Your task to perform on an android device: turn off javascript in the chrome app Image 0: 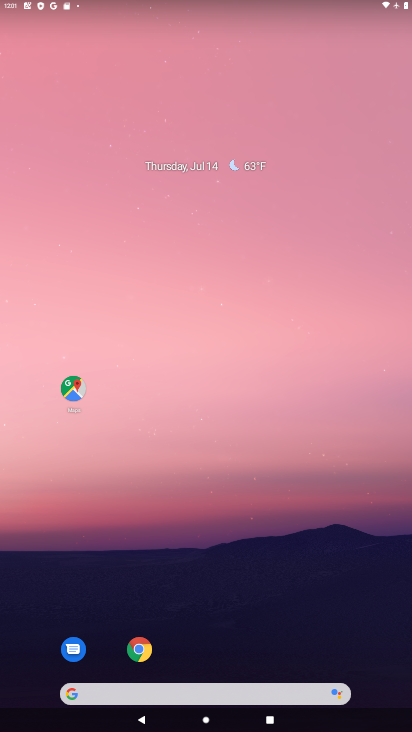
Step 0: drag from (167, 622) to (286, 269)
Your task to perform on an android device: turn off javascript in the chrome app Image 1: 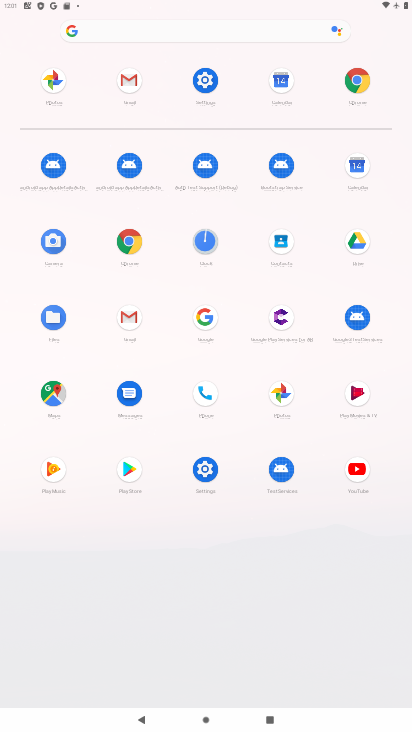
Step 1: click (365, 82)
Your task to perform on an android device: turn off javascript in the chrome app Image 2: 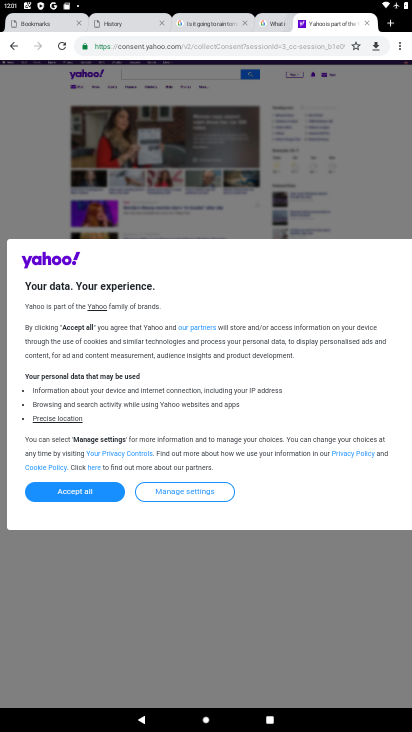
Step 2: click (406, 43)
Your task to perform on an android device: turn off javascript in the chrome app Image 3: 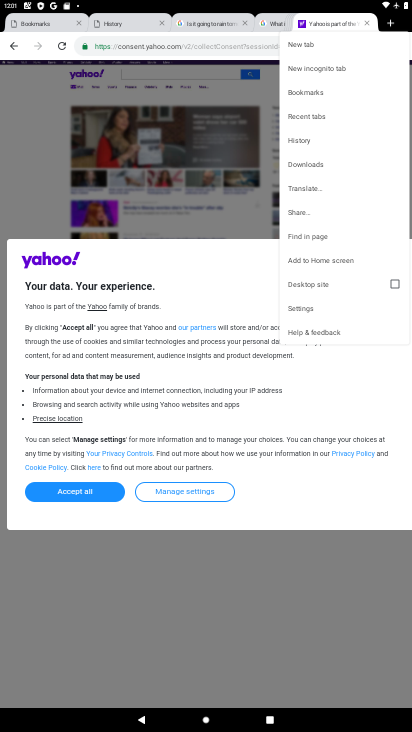
Step 3: click (322, 306)
Your task to perform on an android device: turn off javascript in the chrome app Image 4: 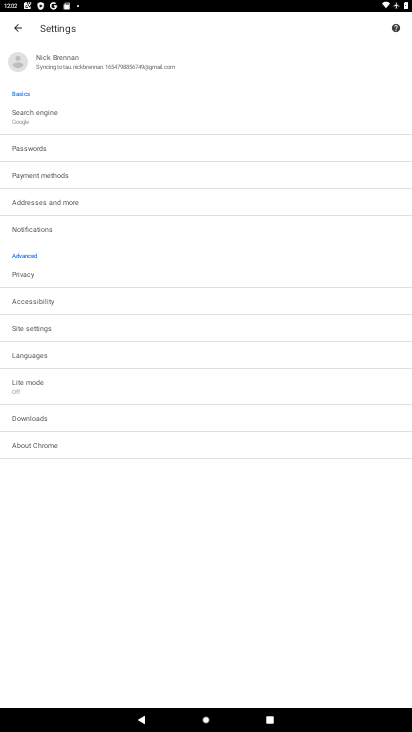
Step 4: click (59, 324)
Your task to perform on an android device: turn off javascript in the chrome app Image 5: 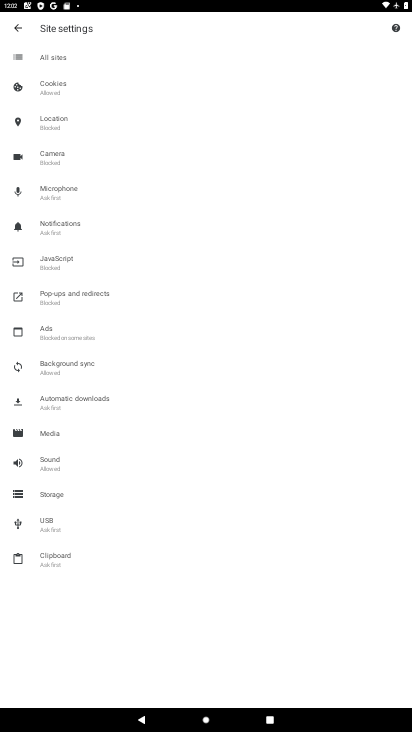
Step 5: click (66, 271)
Your task to perform on an android device: turn off javascript in the chrome app Image 6: 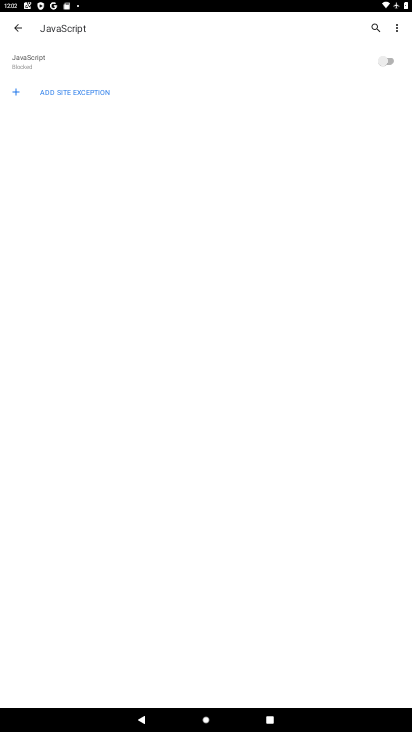
Step 6: task complete